Your task to perform on an android device: Go to battery settings Image 0: 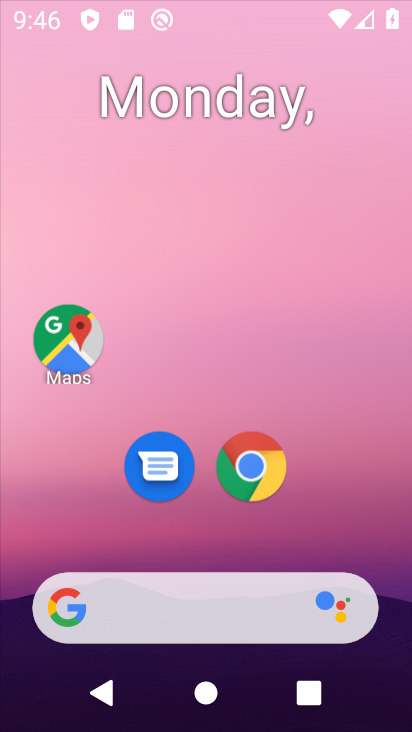
Step 0: drag from (387, 506) to (342, 7)
Your task to perform on an android device: Go to battery settings Image 1: 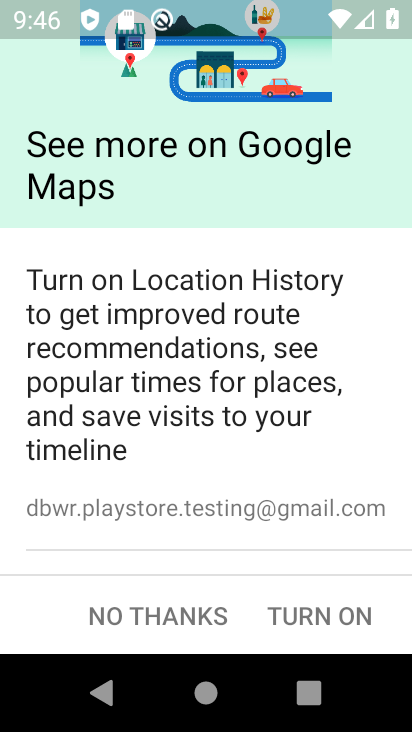
Step 1: press home button
Your task to perform on an android device: Go to battery settings Image 2: 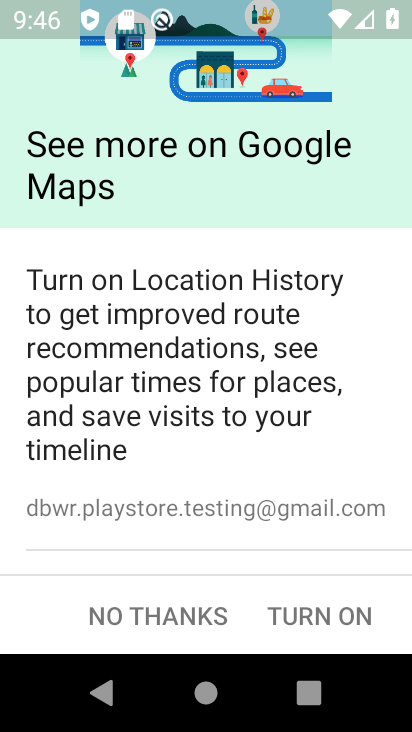
Step 2: drag from (342, 7) to (410, 508)
Your task to perform on an android device: Go to battery settings Image 3: 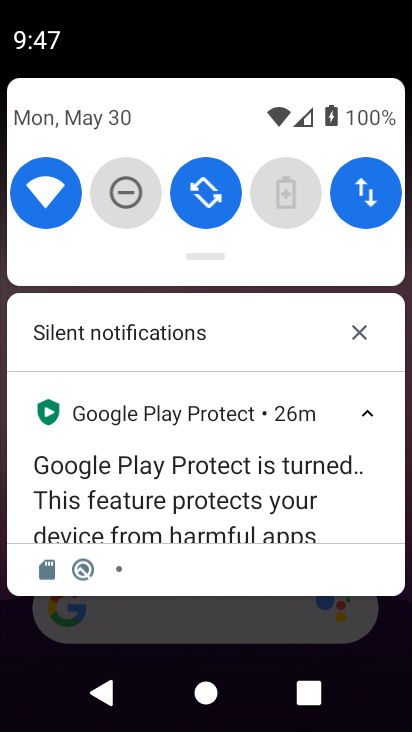
Step 3: drag from (302, 540) to (392, 683)
Your task to perform on an android device: Go to battery settings Image 4: 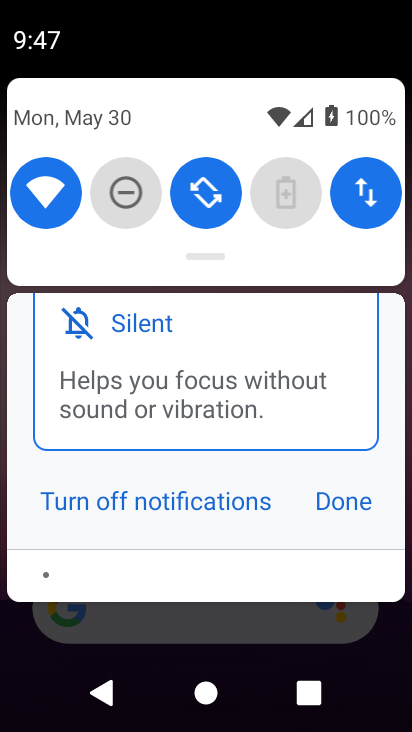
Step 4: click (232, 616)
Your task to perform on an android device: Go to battery settings Image 5: 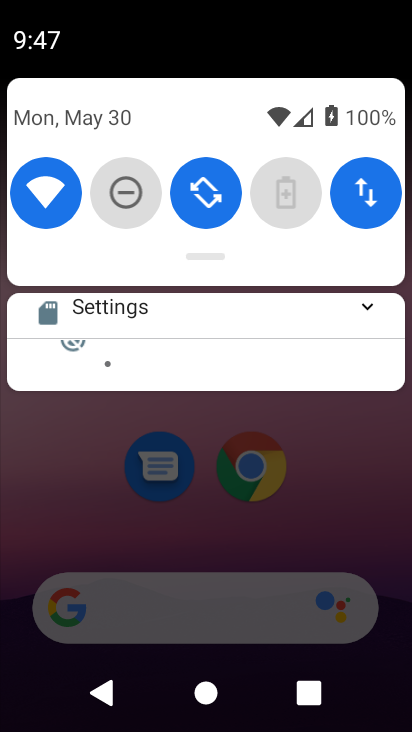
Step 5: click (232, 616)
Your task to perform on an android device: Go to battery settings Image 6: 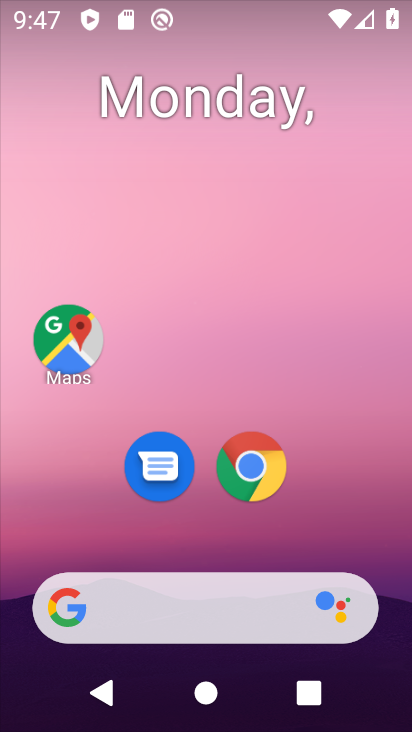
Step 6: drag from (324, 498) to (244, 1)
Your task to perform on an android device: Go to battery settings Image 7: 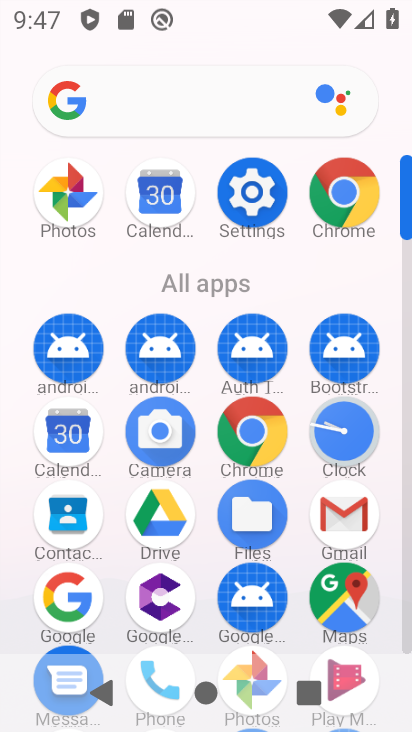
Step 7: click (242, 201)
Your task to perform on an android device: Go to battery settings Image 8: 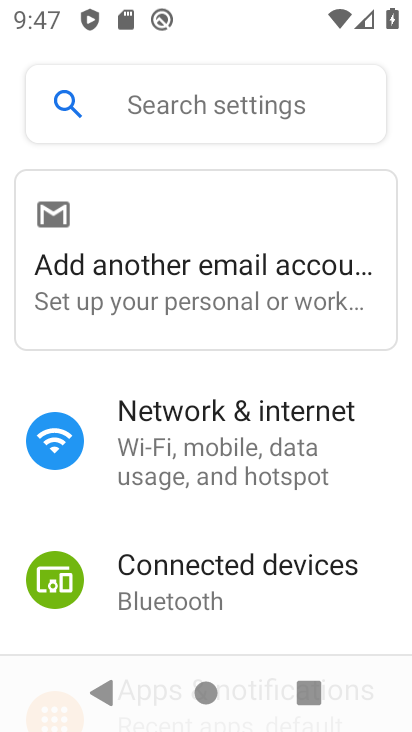
Step 8: drag from (302, 225) to (302, 124)
Your task to perform on an android device: Go to battery settings Image 9: 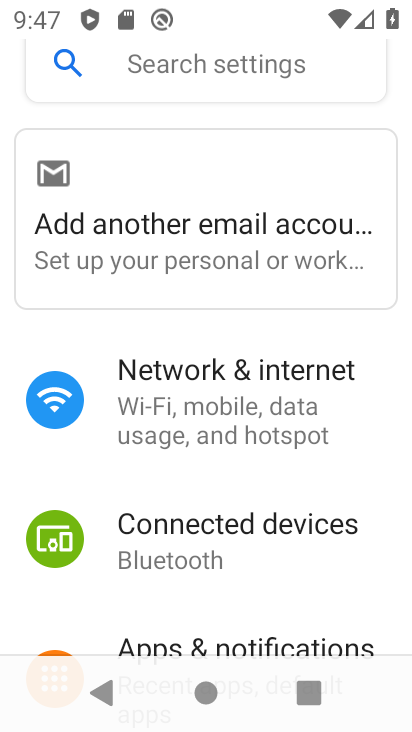
Step 9: drag from (259, 631) to (298, 168)
Your task to perform on an android device: Go to battery settings Image 10: 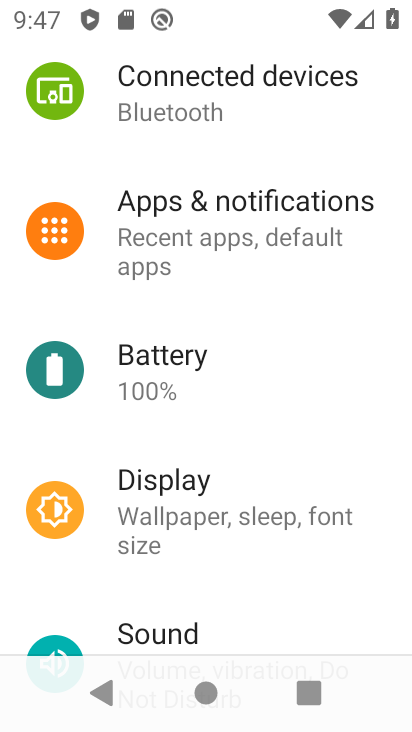
Step 10: click (74, 374)
Your task to perform on an android device: Go to battery settings Image 11: 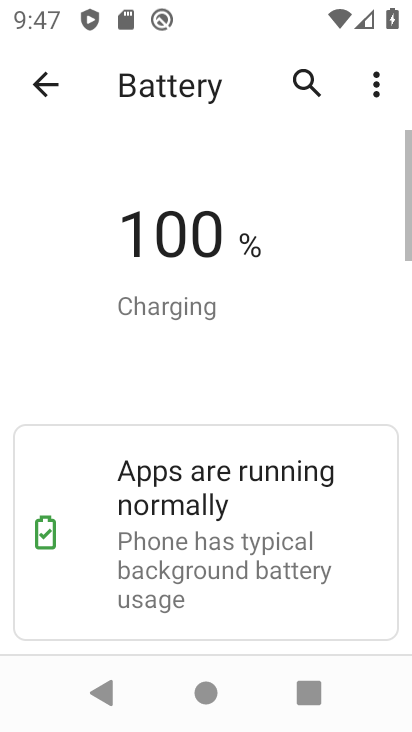
Step 11: task complete